Your task to perform on an android device: Go to Amazon Image 0: 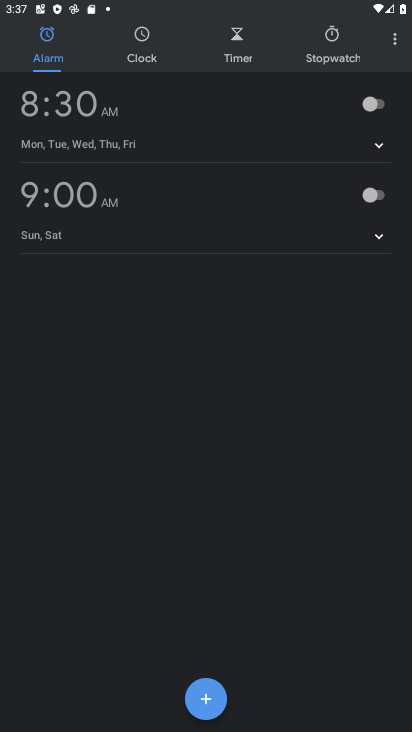
Step 0: press home button
Your task to perform on an android device: Go to Amazon Image 1: 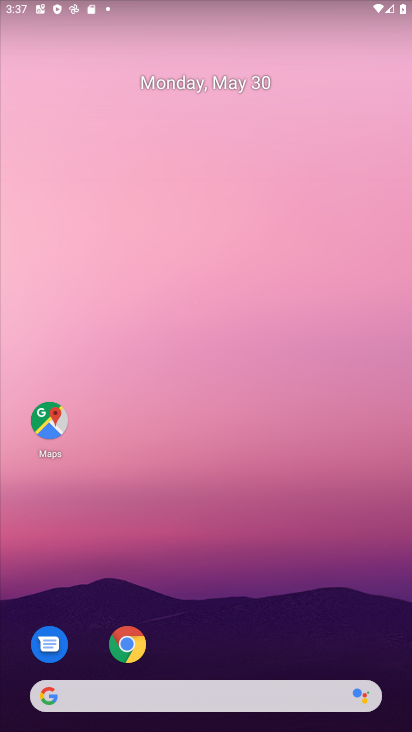
Step 1: drag from (254, 640) to (214, 15)
Your task to perform on an android device: Go to Amazon Image 2: 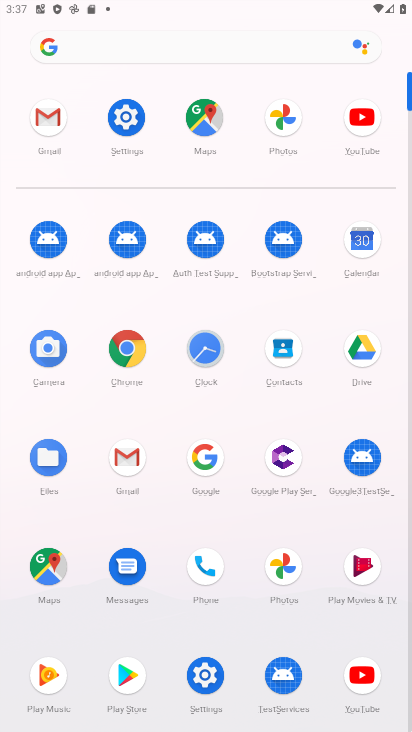
Step 2: click (136, 366)
Your task to perform on an android device: Go to Amazon Image 3: 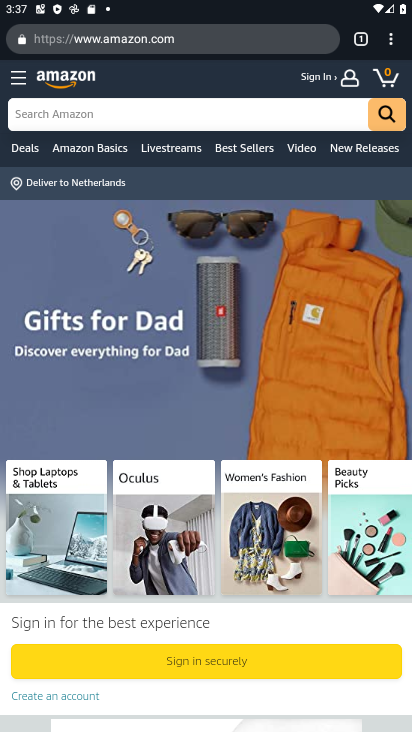
Step 3: task complete